Your task to perform on an android device: Open the stopwatch Image 0: 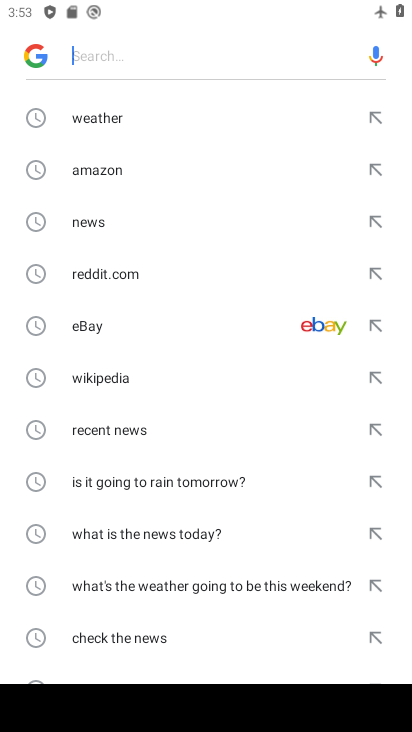
Step 0: press home button
Your task to perform on an android device: Open the stopwatch Image 1: 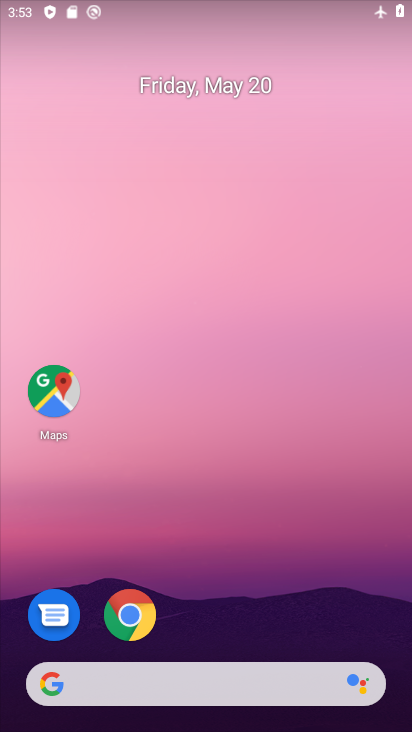
Step 1: drag from (267, 598) to (346, 33)
Your task to perform on an android device: Open the stopwatch Image 2: 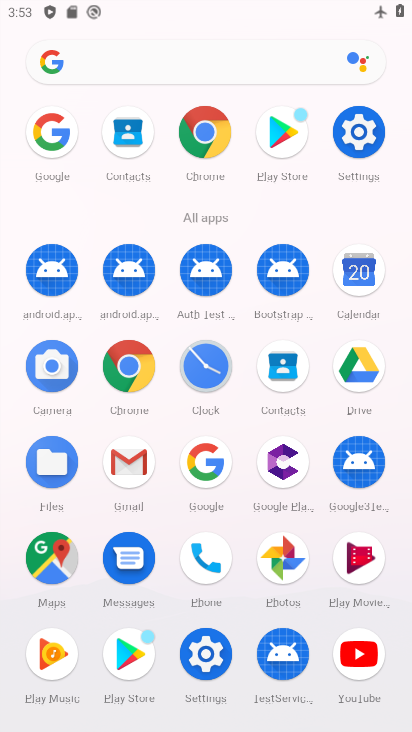
Step 2: click (217, 380)
Your task to perform on an android device: Open the stopwatch Image 3: 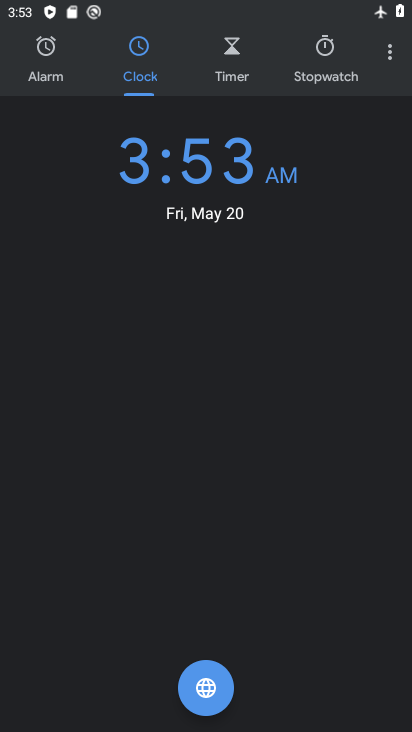
Step 3: click (321, 62)
Your task to perform on an android device: Open the stopwatch Image 4: 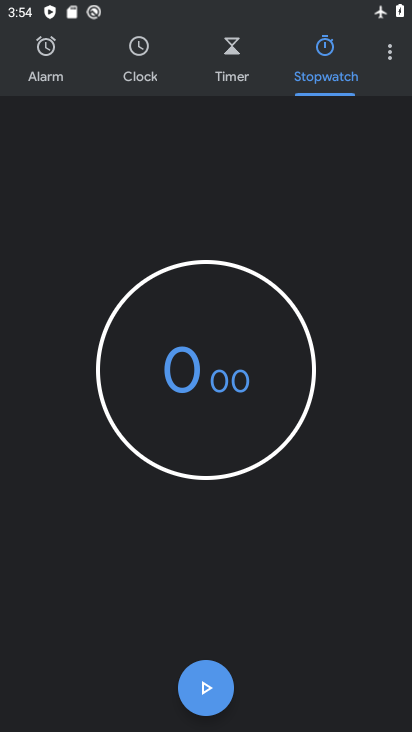
Step 4: task complete